Your task to perform on an android device: Open internet settings Image 0: 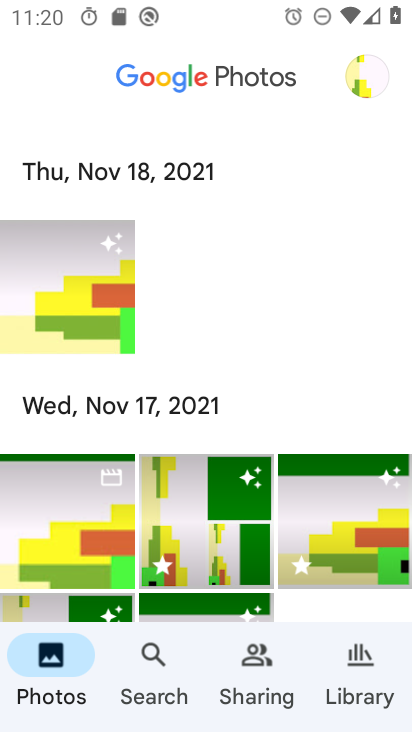
Step 0: press home button
Your task to perform on an android device: Open internet settings Image 1: 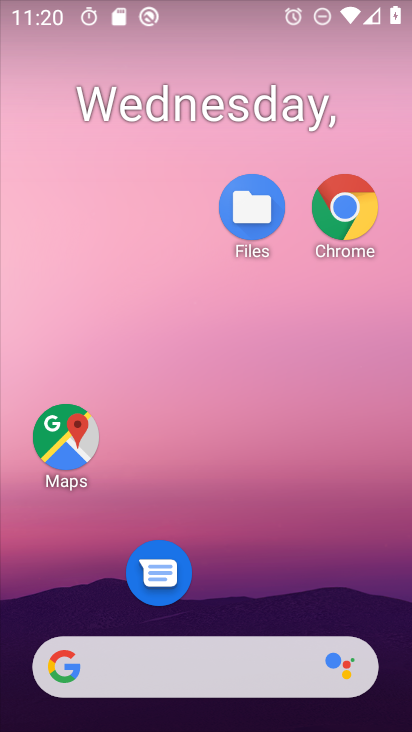
Step 1: drag from (249, 657) to (282, 53)
Your task to perform on an android device: Open internet settings Image 2: 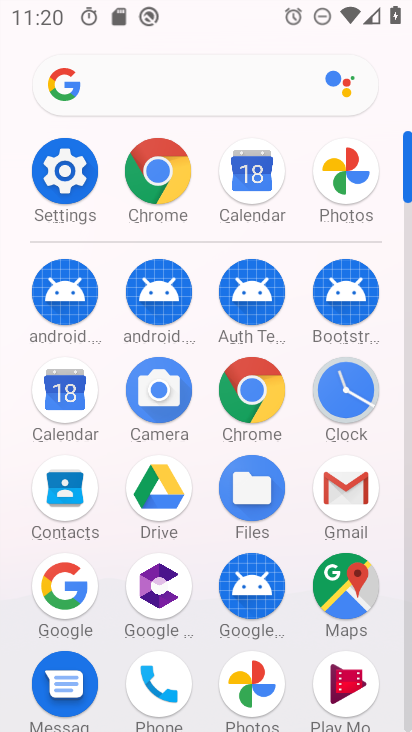
Step 2: click (46, 174)
Your task to perform on an android device: Open internet settings Image 3: 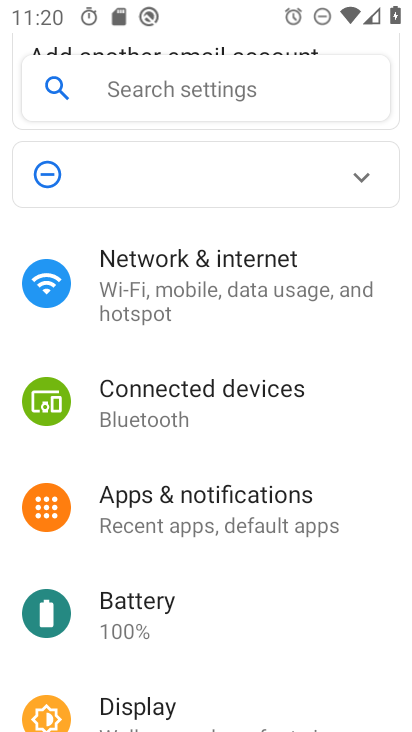
Step 3: drag from (226, 387) to (256, 691)
Your task to perform on an android device: Open internet settings Image 4: 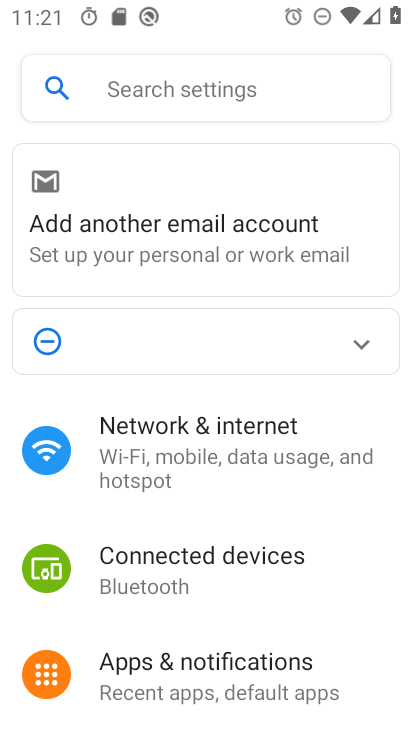
Step 4: click (289, 451)
Your task to perform on an android device: Open internet settings Image 5: 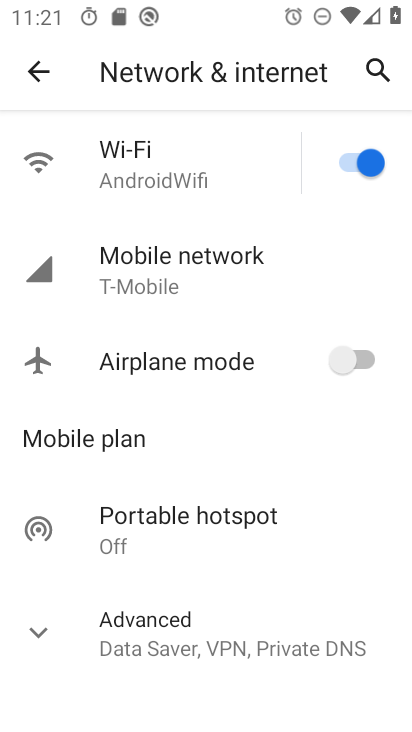
Step 5: click (202, 279)
Your task to perform on an android device: Open internet settings Image 6: 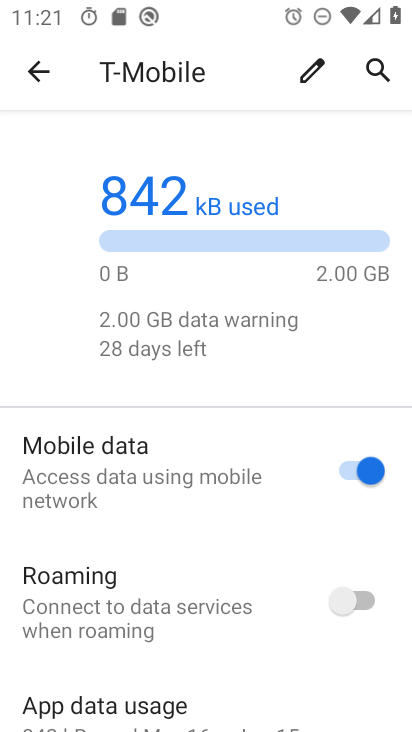
Step 6: task complete